Your task to perform on an android device: What's a good restaurant in New Jersey? Image 0: 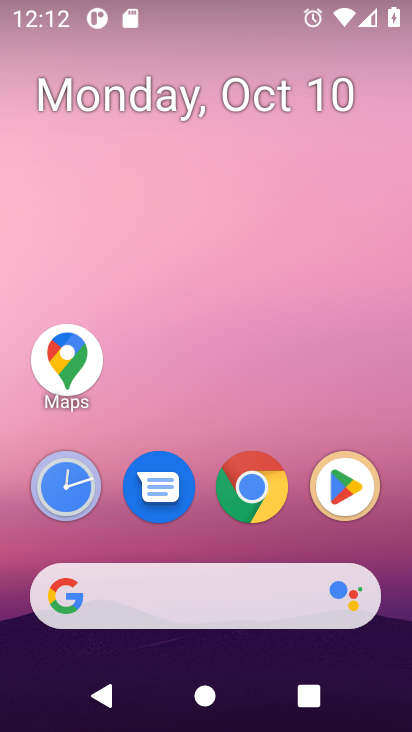
Step 0: drag from (207, 550) to (238, 0)
Your task to perform on an android device: What's a good restaurant in New Jersey? Image 1: 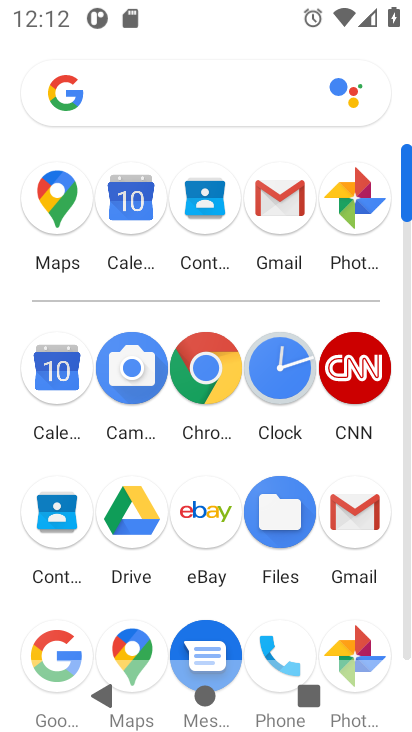
Step 1: click (201, 374)
Your task to perform on an android device: What's a good restaurant in New Jersey? Image 2: 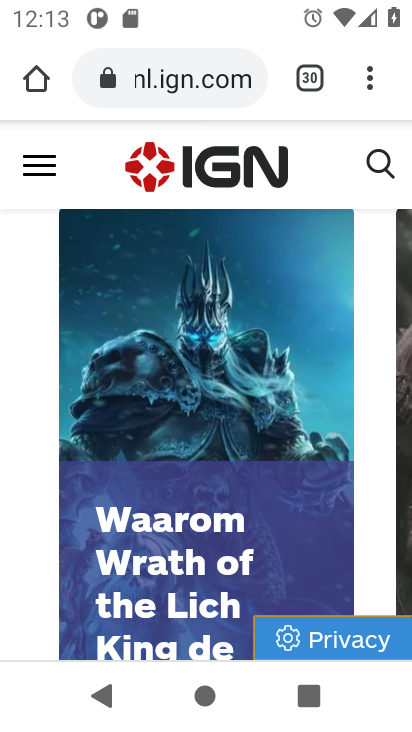
Step 2: drag from (368, 82) to (107, 154)
Your task to perform on an android device: What's a good restaurant in New Jersey? Image 3: 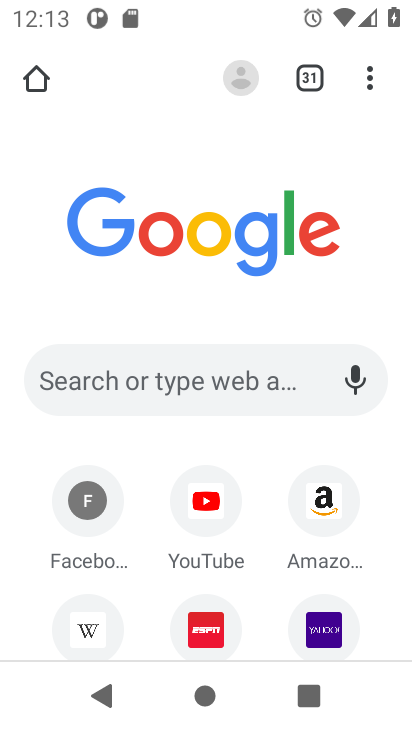
Step 3: click (165, 391)
Your task to perform on an android device: What's a good restaurant in New Jersey? Image 4: 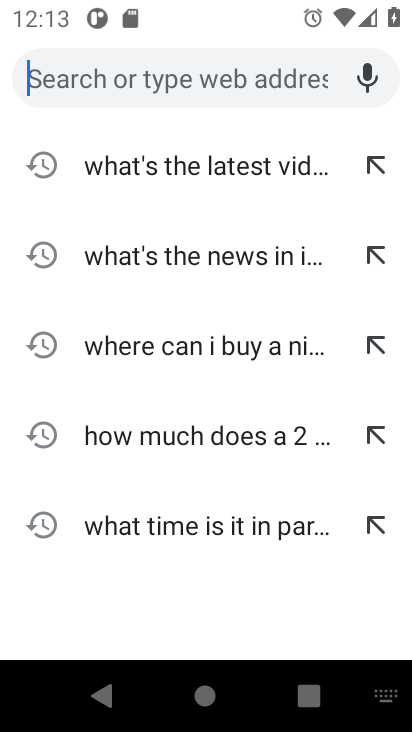
Step 4: type "What's a good restaurant in New Jersey?"
Your task to perform on an android device: What's a good restaurant in New Jersey? Image 5: 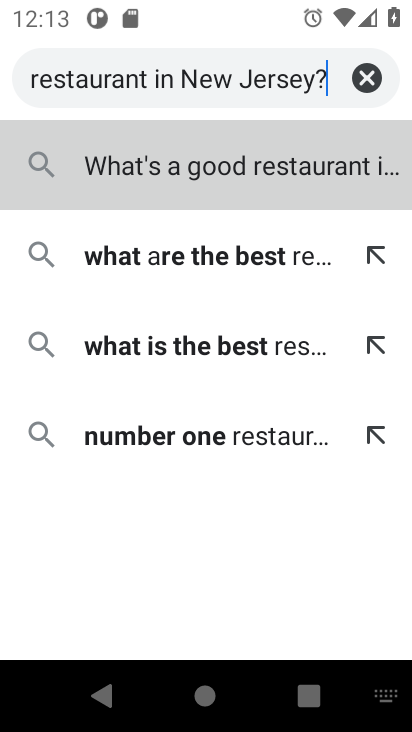
Step 5: type ""
Your task to perform on an android device: What's a good restaurant in New Jersey? Image 6: 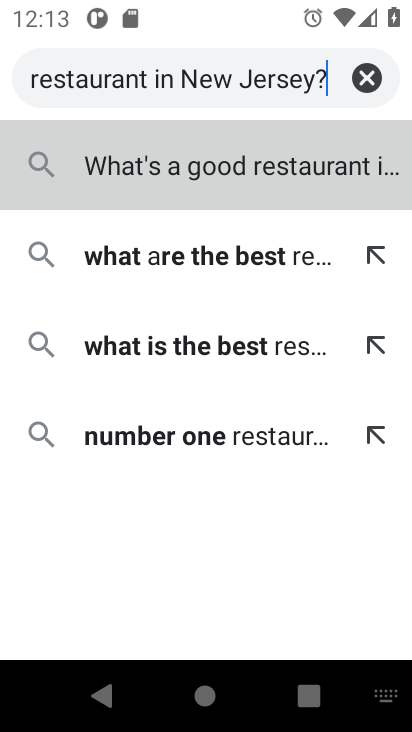
Step 6: click (185, 166)
Your task to perform on an android device: What's a good restaurant in New Jersey? Image 7: 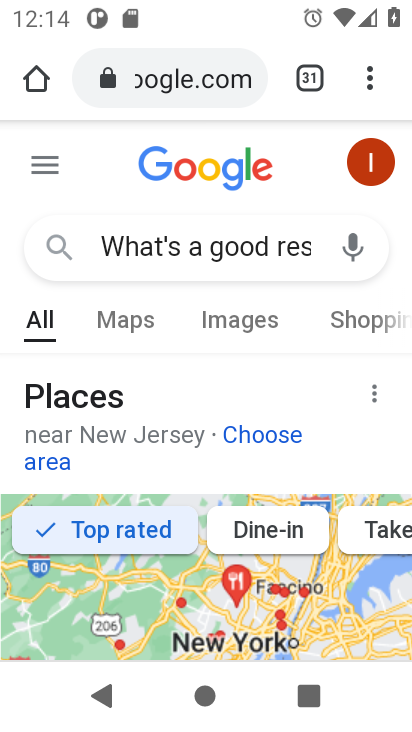
Step 7: task complete